Your task to perform on an android device: Show the shopping cart on newegg.com. Search for panasonic triple a on newegg.com, select the first entry, add it to the cart, then select checkout. Image 0: 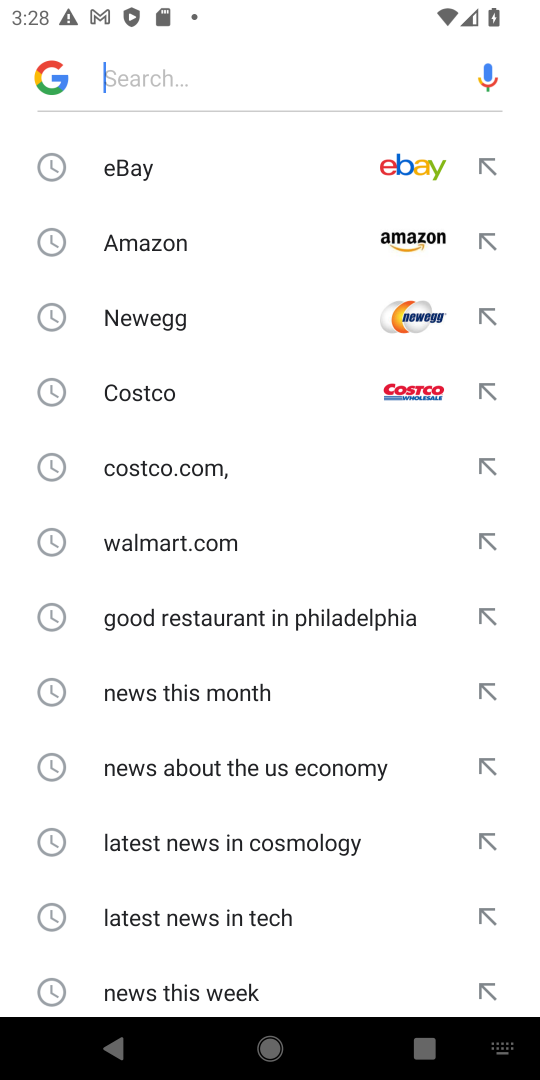
Step 0: press home button
Your task to perform on an android device: Show the shopping cart on newegg.com. Search for panasonic triple a on newegg.com, select the first entry, add it to the cart, then select checkout. Image 1: 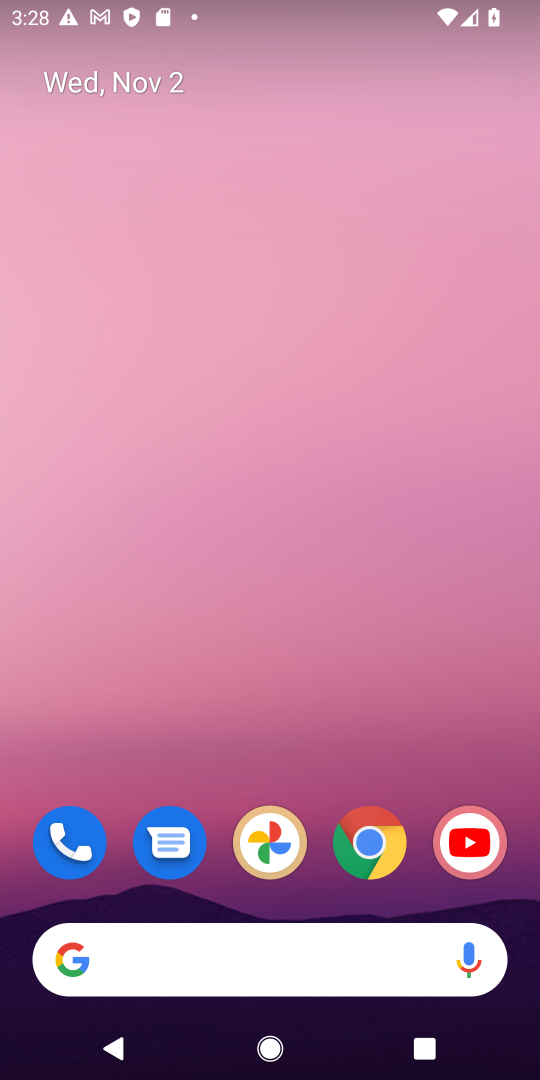
Step 1: click (358, 853)
Your task to perform on an android device: Show the shopping cart on newegg.com. Search for panasonic triple a on newegg.com, select the first entry, add it to the cart, then select checkout. Image 2: 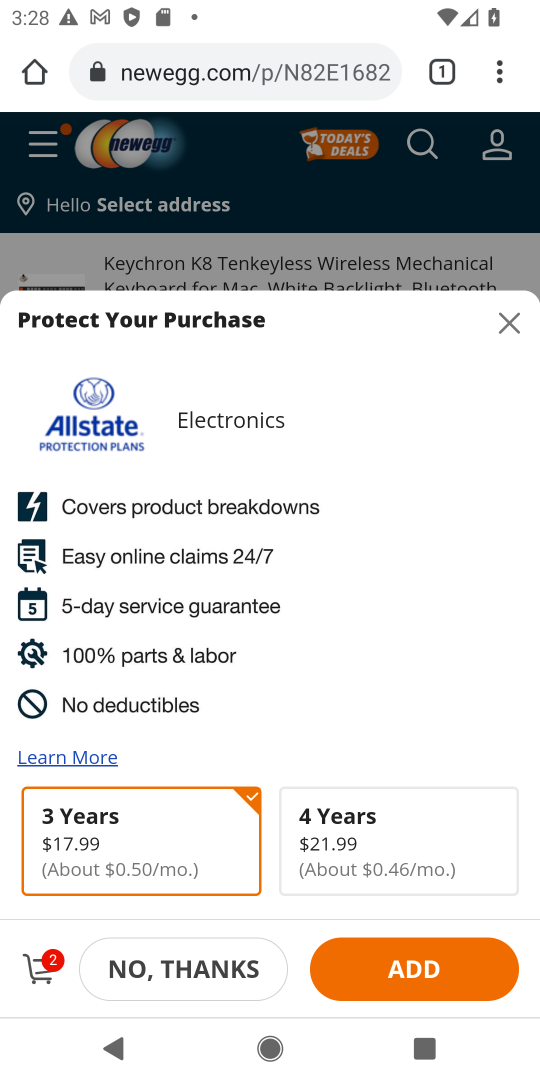
Step 2: click (506, 324)
Your task to perform on an android device: Show the shopping cart on newegg.com. Search for panasonic triple a on newegg.com, select the first entry, add it to the cart, then select checkout. Image 3: 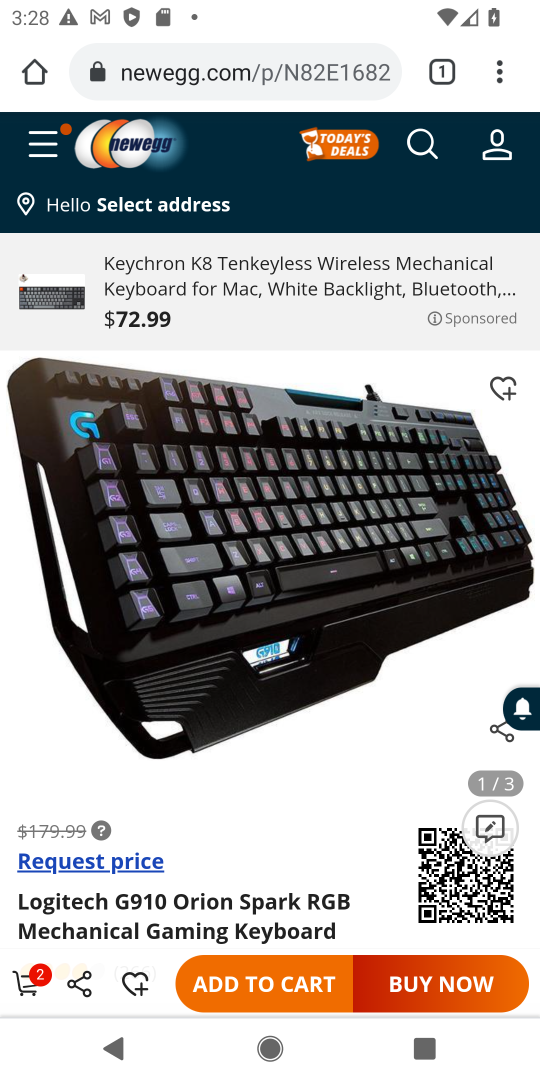
Step 3: click (37, 983)
Your task to perform on an android device: Show the shopping cart on newegg.com. Search for panasonic triple a on newegg.com, select the first entry, add it to the cart, then select checkout. Image 4: 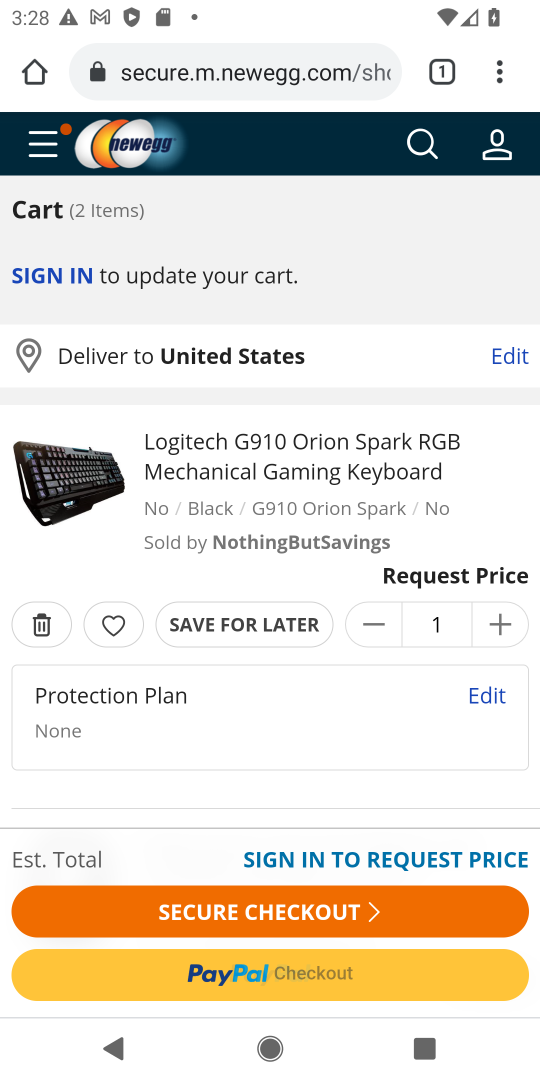
Step 4: drag from (273, 790) to (251, 425)
Your task to perform on an android device: Show the shopping cart on newegg.com. Search for panasonic triple a on newegg.com, select the first entry, add it to the cart, then select checkout. Image 5: 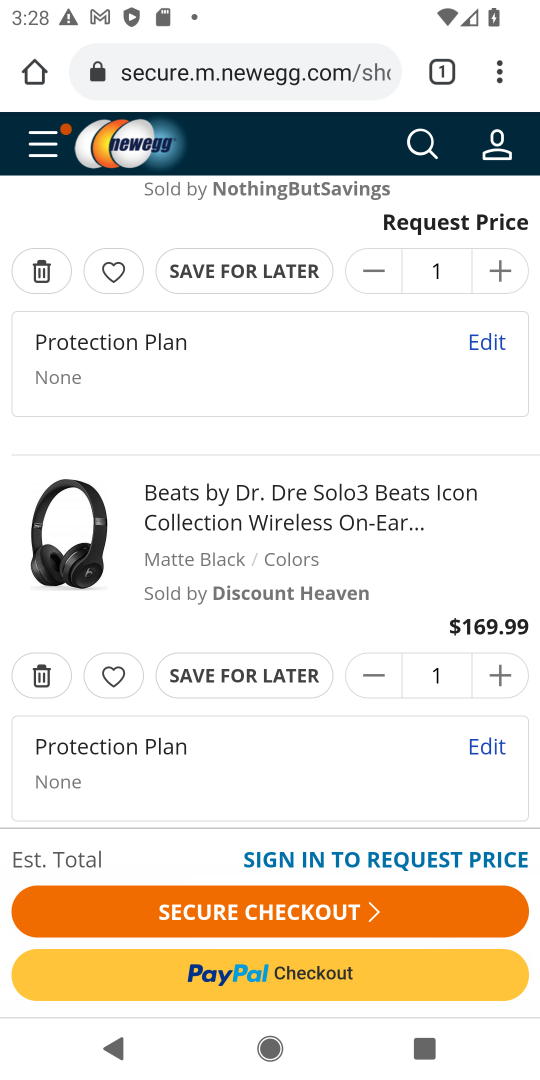
Step 5: click (422, 152)
Your task to perform on an android device: Show the shopping cart on newegg.com. Search for panasonic triple a on newegg.com, select the first entry, add it to the cart, then select checkout. Image 6: 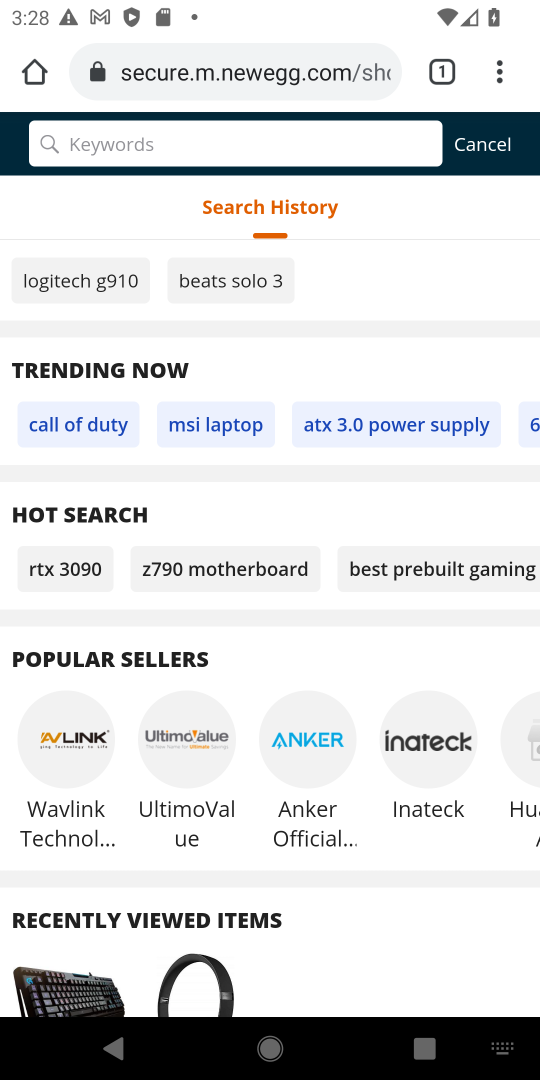
Step 6: type "panasonic triple a"
Your task to perform on an android device: Show the shopping cart on newegg.com. Search for panasonic triple a on newegg.com, select the first entry, add it to the cart, then select checkout. Image 7: 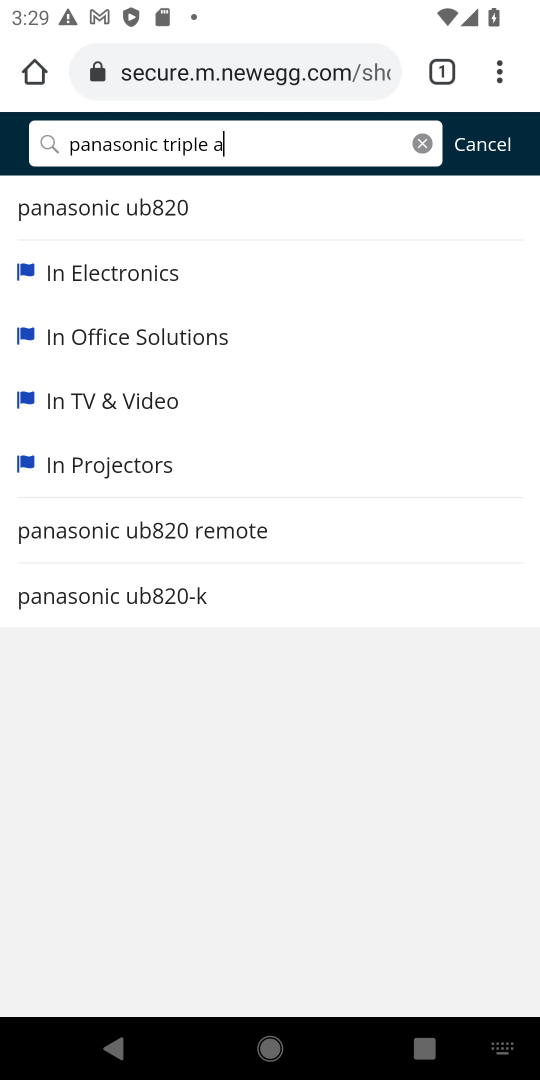
Step 7: press enter
Your task to perform on an android device: Show the shopping cart on newegg.com. Search for panasonic triple a on newegg.com, select the first entry, add it to the cart, then select checkout. Image 8: 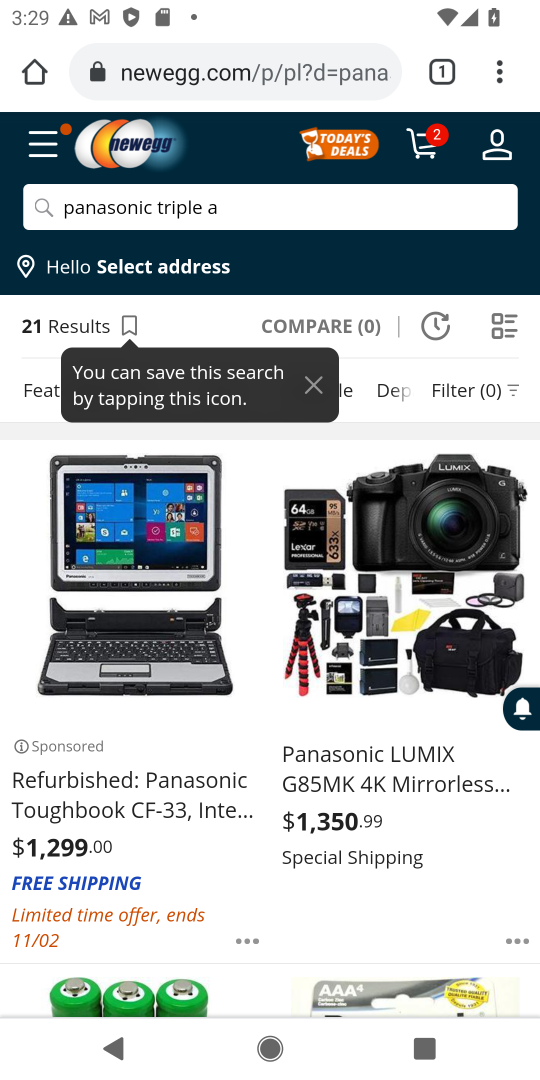
Step 8: drag from (274, 931) to (198, 907)
Your task to perform on an android device: Show the shopping cart on newegg.com. Search for panasonic triple a on newegg.com, select the first entry, add it to the cart, then select checkout. Image 9: 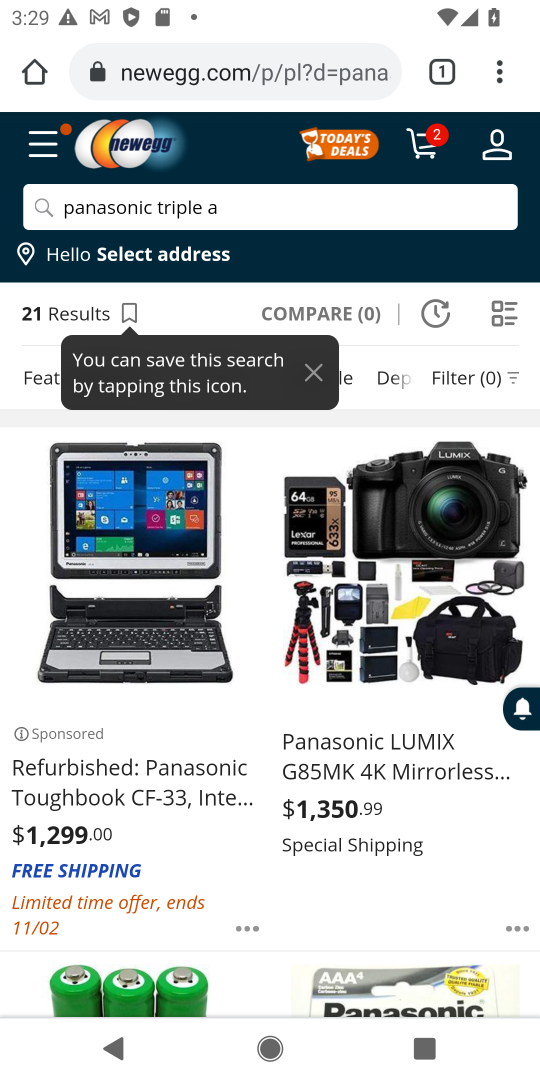
Step 9: click (503, 597)
Your task to perform on an android device: Show the shopping cart on newegg.com. Search for panasonic triple a on newegg.com, select the first entry, add it to the cart, then select checkout. Image 10: 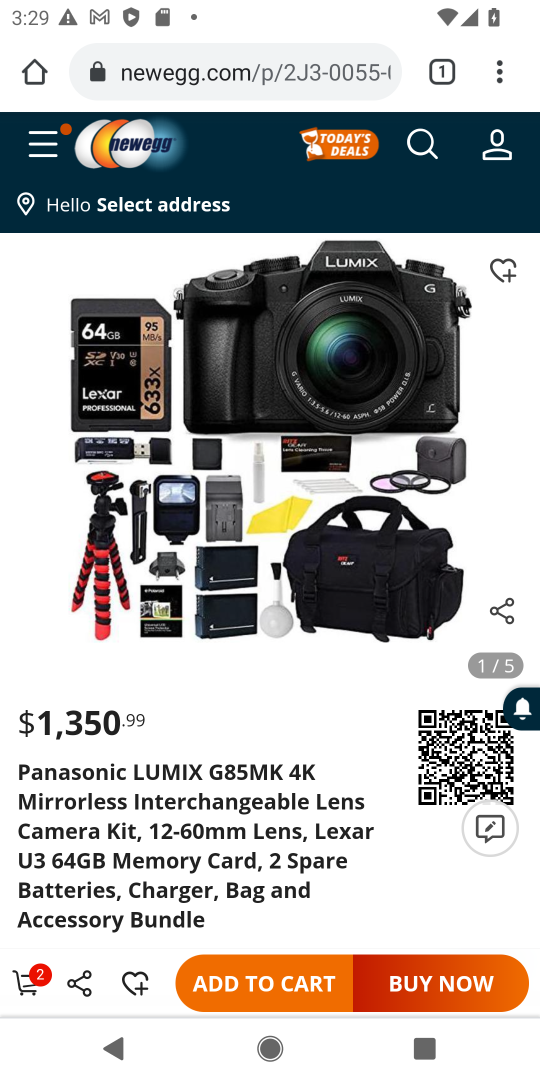
Step 10: click (262, 991)
Your task to perform on an android device: Show the shopping cart on newegg.com. Search for panasonic triple a on newegg.com, select the first entry, add it to the cart, then select checkout. Image 11: 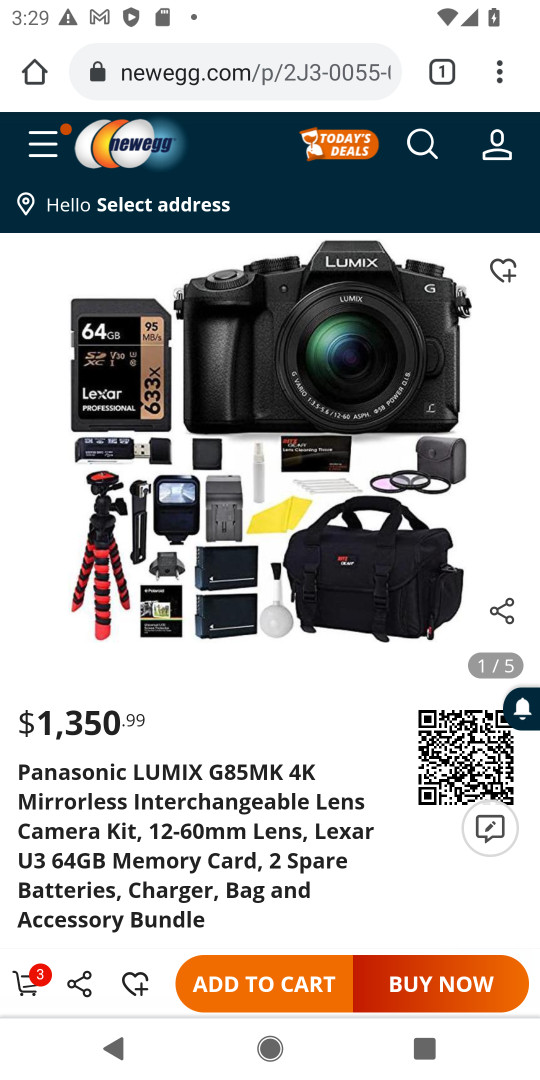
Step 11: click (36, 983)
Your task to perform on an android device: Show the shopping cart on newegg.com. Search for panasonic triple a on newegg.com, select the first entry, add it to the cart, then select checkout. Image 12: 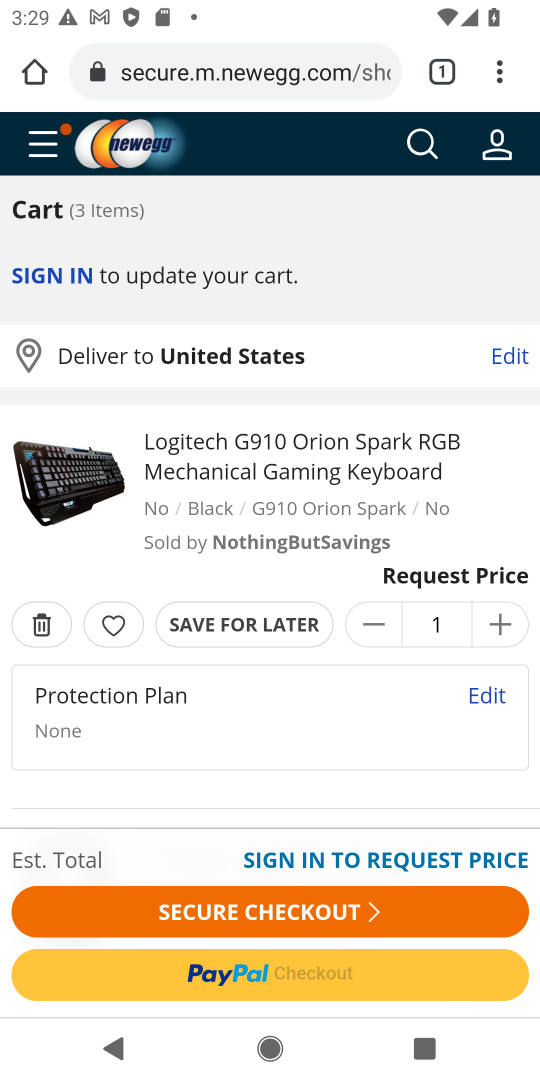
Step 12: drag from (300, 563) to (288, 17)
Your task to perform on an android device: Show the shopping cart on newegg.com. Search for panasonic triple a on newegg.com, select the first entry, add it to the cart, then select checkout. Image 13: 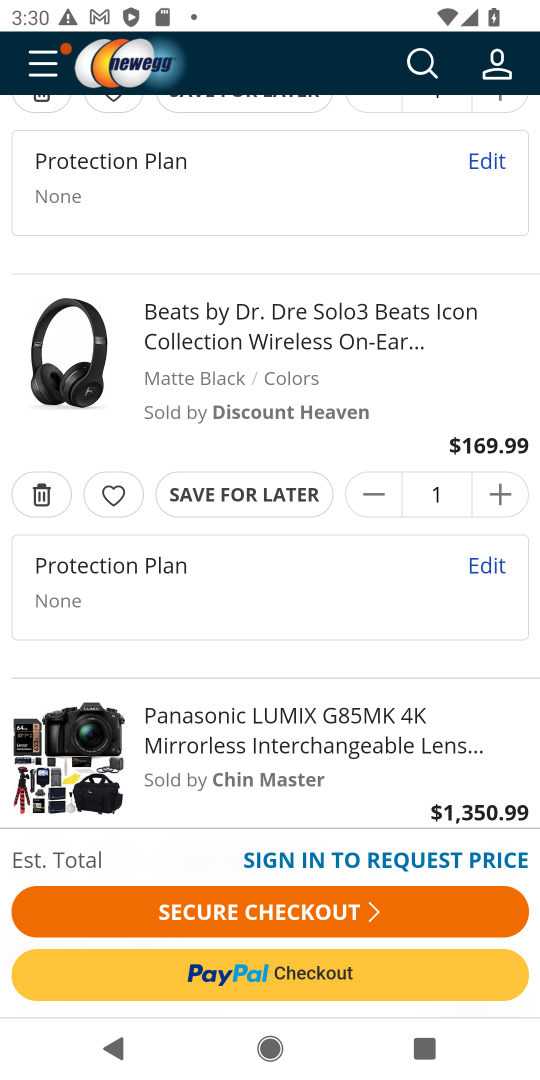
Step 13: click (169, 913)
Your task to perform on an android device: Show the shopping cart on newegg.com. Search for panasonic triple a on newegg.com, select the first entry, add it to the cart, then select checkout. Image 14: 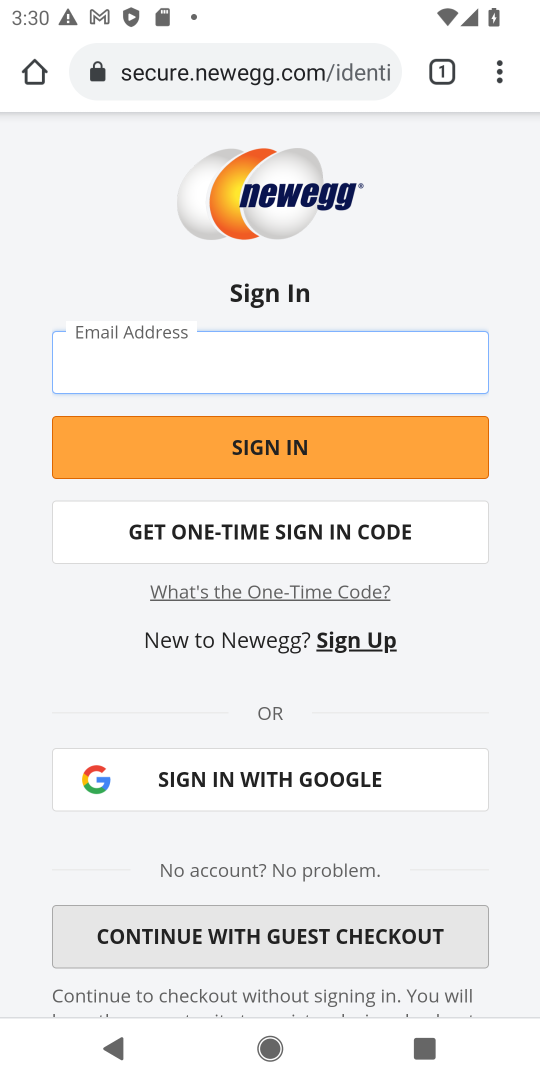
Step 14: task complete